Your task to perform on an android device: Open Google Chrome and click the shortcut for Amazon.com Image 0: 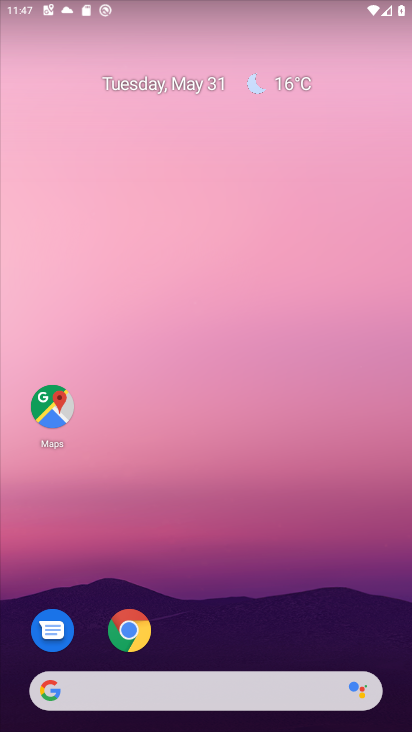
Step 0: click (134, 627)
Your task to perform on an android device: Open Google Chrome and click the shortcut for Amazon.com Image 1: 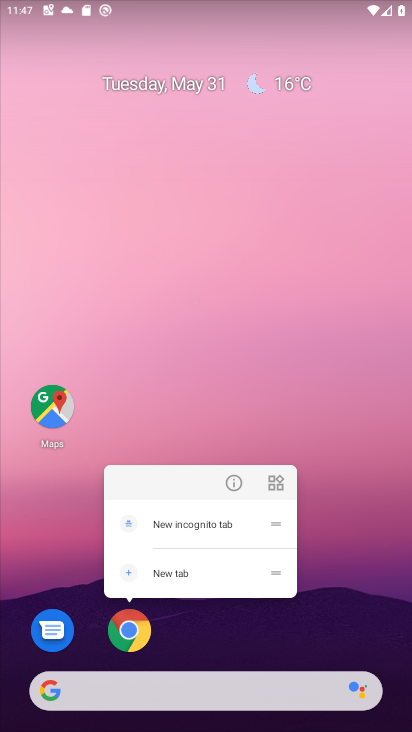
Step 1: click (134, 627)
Your task to perform on an android device: Open Google Chrome and click the shortcut for Amazon.com Image 2: 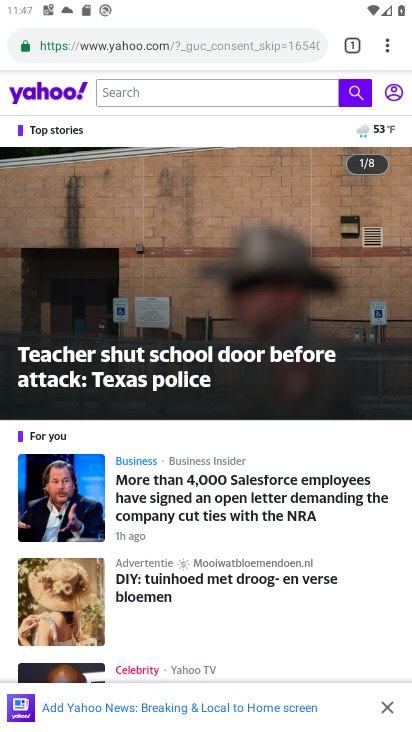
Step 2: click (182, 30)
Your task to perform on an android device: Open Google Chrome and click the shortcut for Amazon.com Image 3: 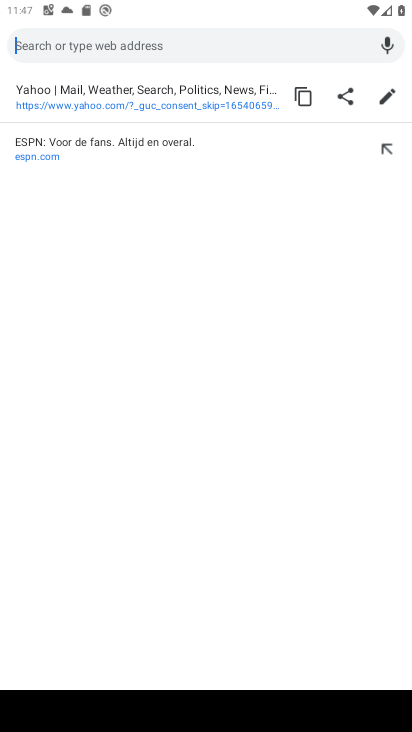
Step 3: press back button
Your task to perform on an android device: Open Google Chrome and click the shortcut for Amazon.com Image 4: 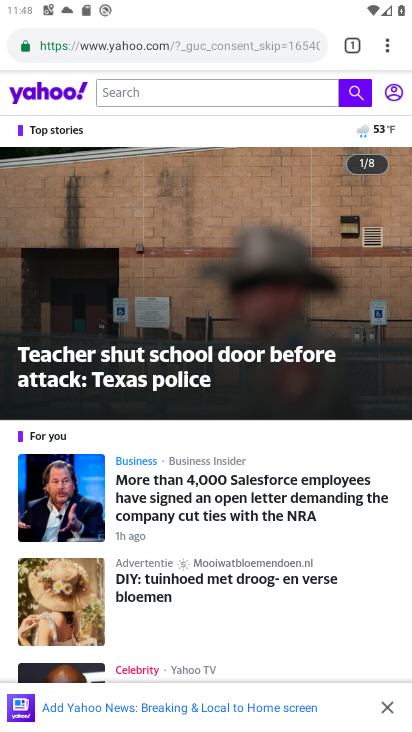
Step 4: drag from (394, 42) to (237, 88)
Your task to perform on an android device: Open Google Chrome and click the shortcut for Amazon.com Image 5: 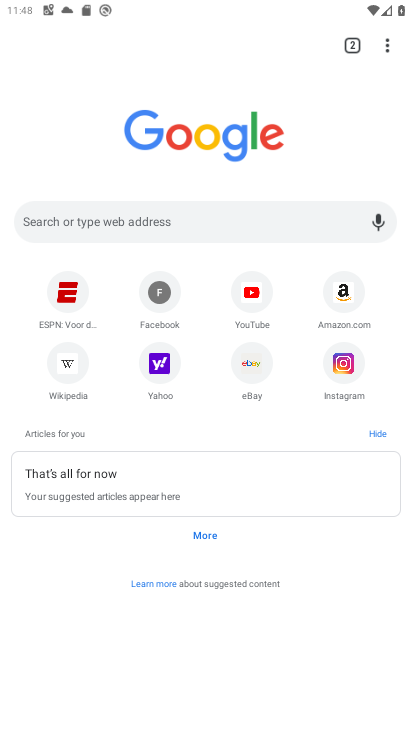
Step 5: click (350, 294)
Your task to perform on an android device: Open Google Chrome and click the shortcut for Amazon.com Image 6: 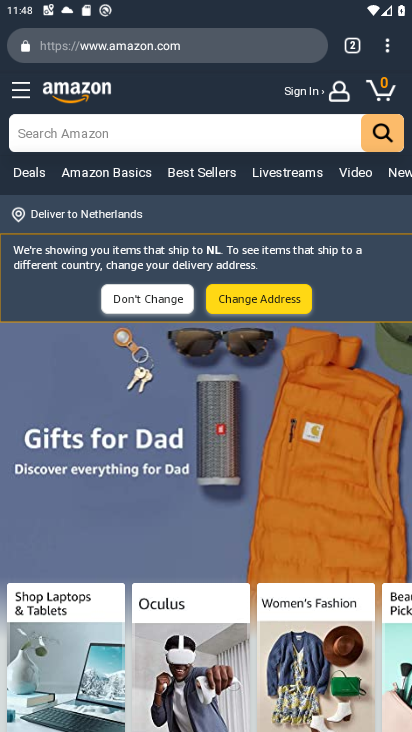
Step 6: task complete